Your task to perform on an android device: What's the weather going to be this weekend? Image 0: 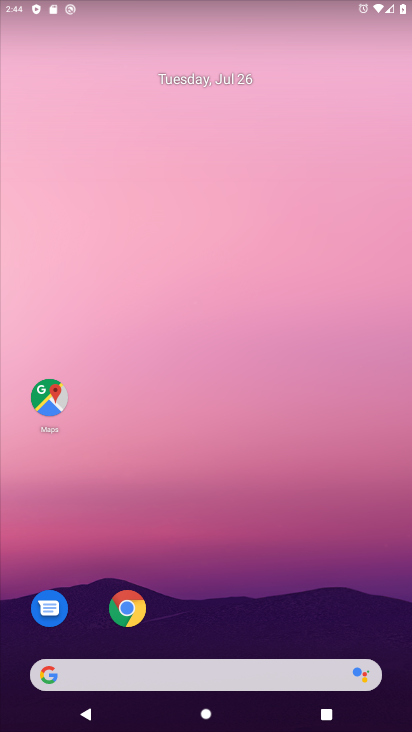
Step 0: click (203, 669)
Your task to perform on an android device: What's the weather going to be this weekend? Image 1: 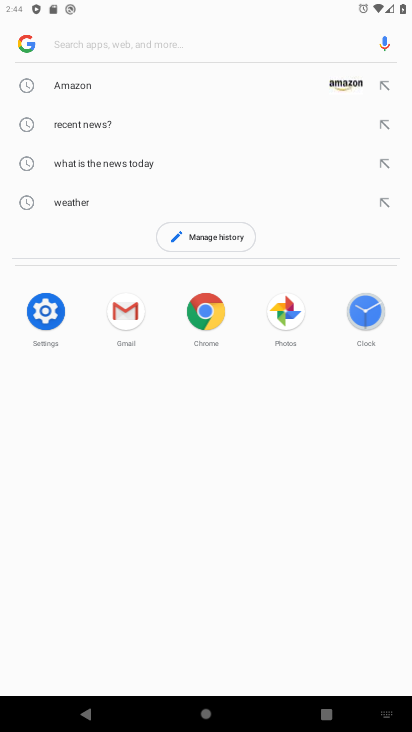
Step 1: type "what's the weather going to be this weekend"
Your task to perform on an android device: What's the weather going to be this weekend? Image 2: 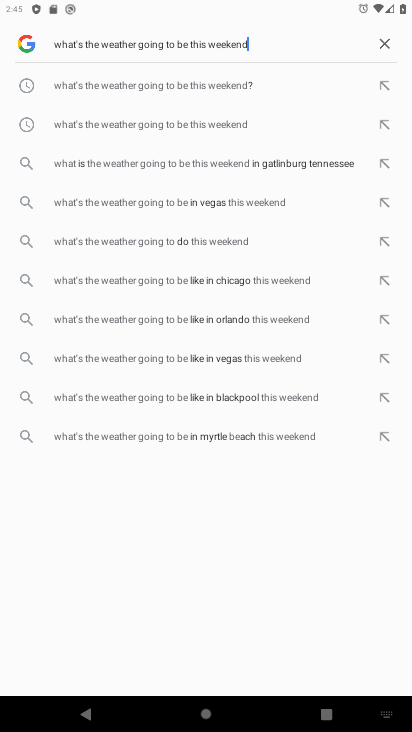
Step 2: click (322, 73)
Your task to perform on an android device: What's the weather going to be this weekend? Image 3: 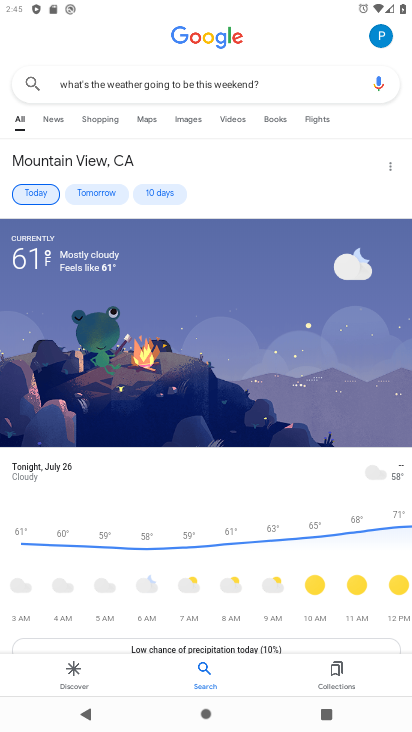
Step 3: task complete